Your task to perform on an android device: Open internet settings Image 0: 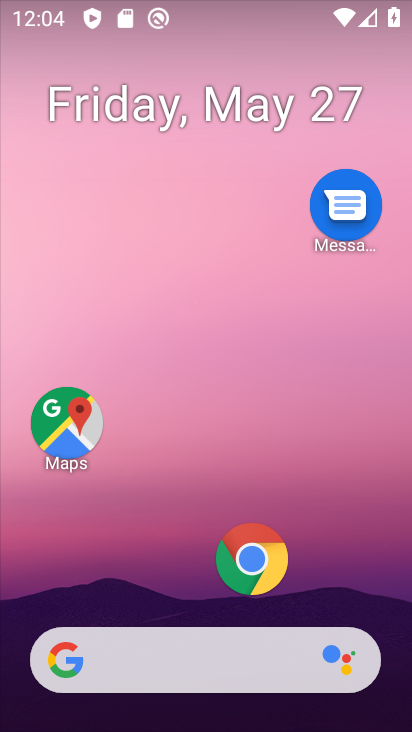
Step 0: drag from (282, 602) to (382, 434)
Your task to perform on an android device: Open internet settings Image 1: 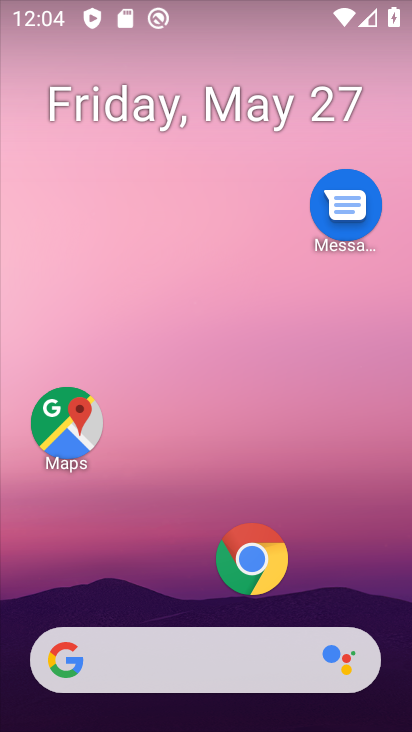
Step 1: drag from (178, 584) to (214, 152)
Your task to perform on an android device: Open internet settings Image 2: 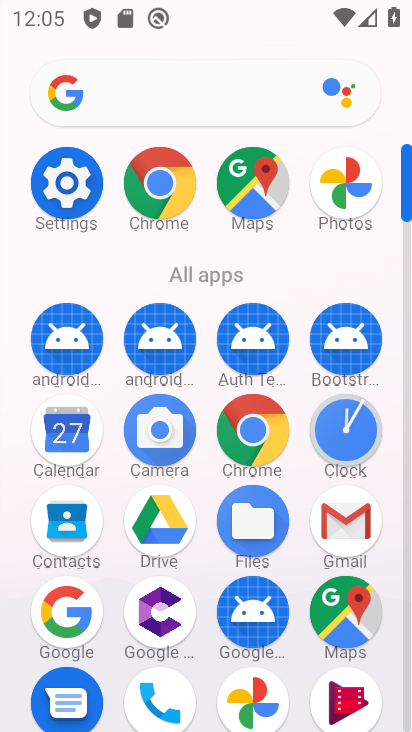
Step 2: click (75, 192)
Your task to perform on an android device: Open internet settings Image 3: 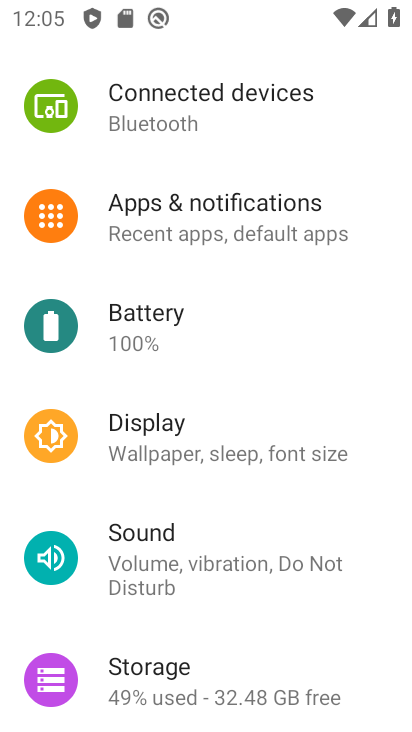
Step 3: drag from (225, 572) to (252, 276)
Your task to perform on an android device: Open internet settings Image 4: 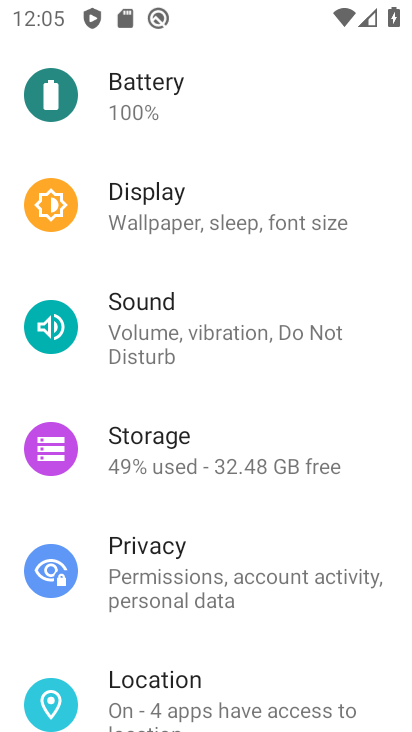
Step 4: drag from (251, 344) to (242, 650)
Your task to perform on an android device: Open internet settings Image 5: 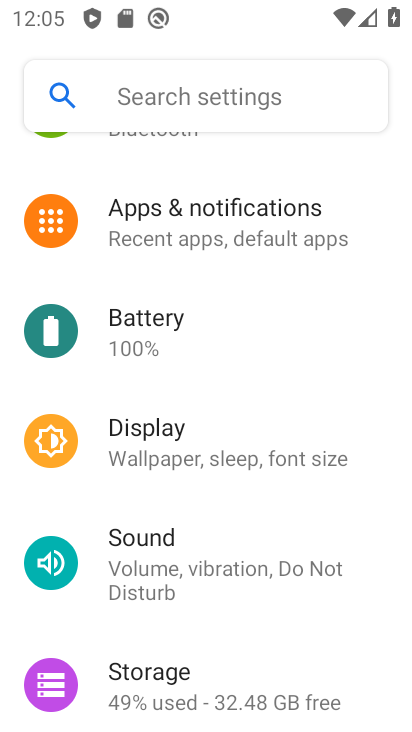
Step 5: drag from (237, 316) to (234, 613)
Your task to perform on an android device: Open internet settings Image 6: 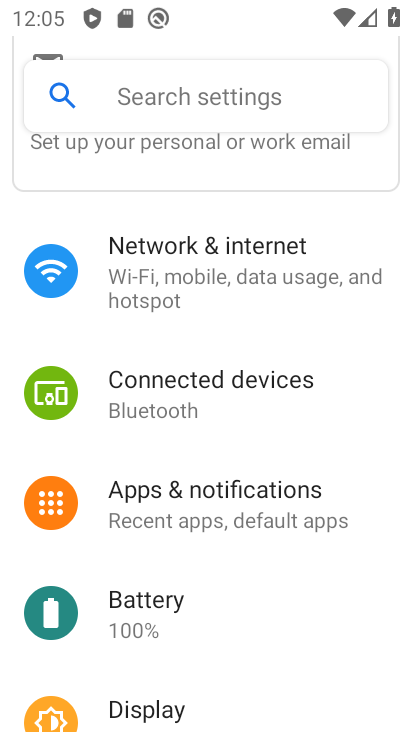
Step 6: click (226, 287)
Your task to perform on an android device: Open internet settings Image 7: 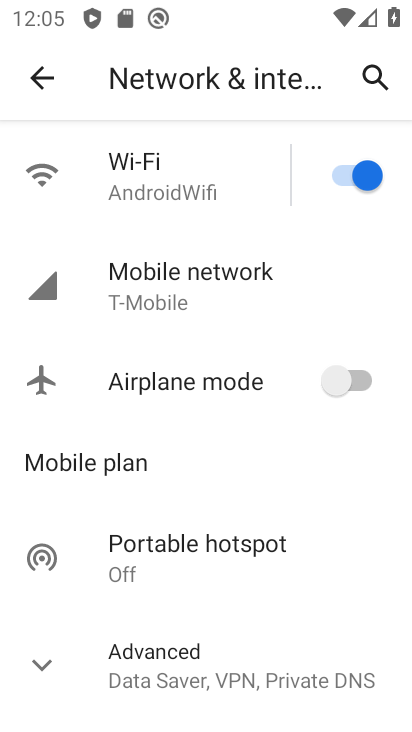
Step 7: click (208, 296)
Your task to perform on an android device: Open internet settings Image 8: 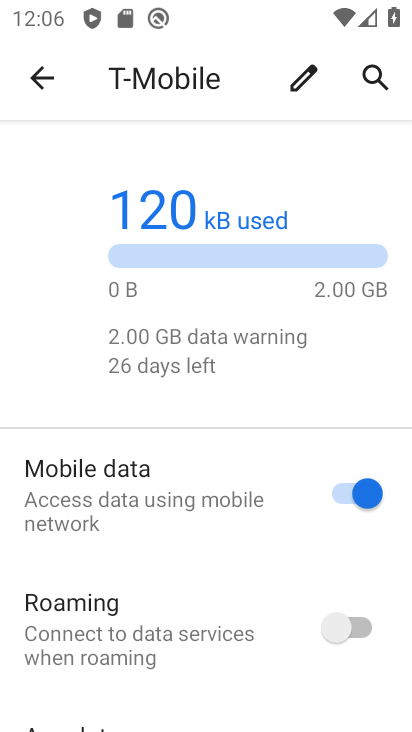
Step 8: task complete